Your task to perform on an android device: clear history in the chrome app Image 0: 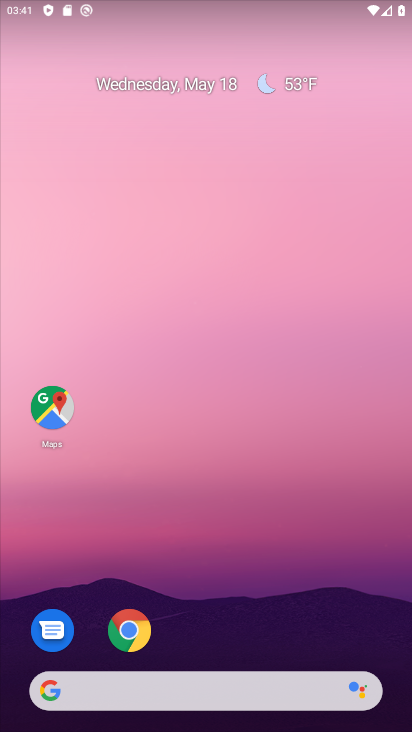
Step 0: click (131, 630)
Your task to perform on an android device: clear history in the chrome app Image 1: 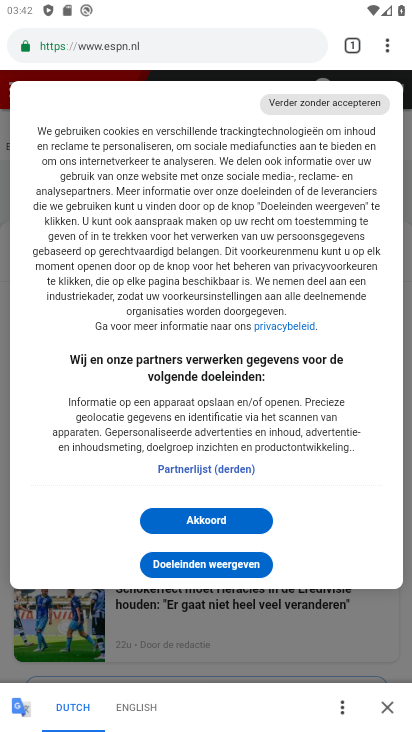
Step 1: click (388, 52)
Your task to perform on an android device: clear history in the chrome app Image 2: 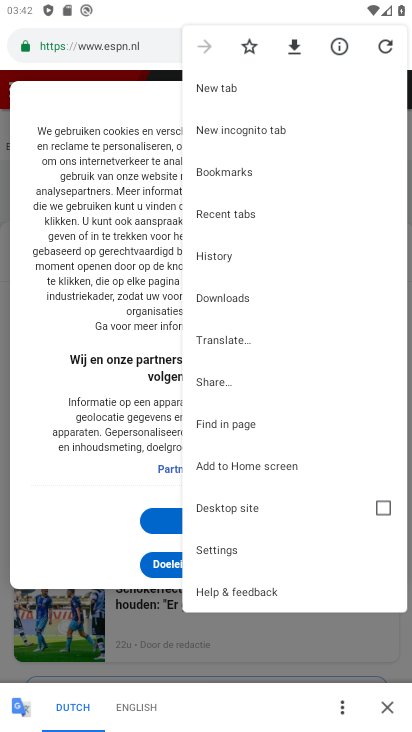
Step 2: click (213, 254)
Your task to perform on an android device: clear history in the chrome app Image 3: 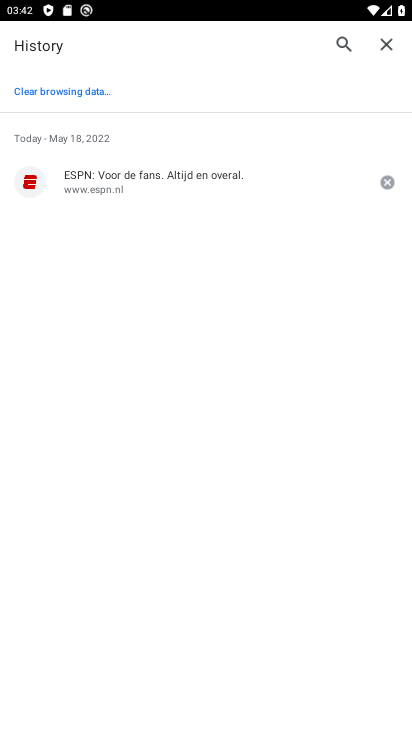
Step 3: click (67, 92)
Your task to perform on an android device: clear history in the chrome app Image 4: 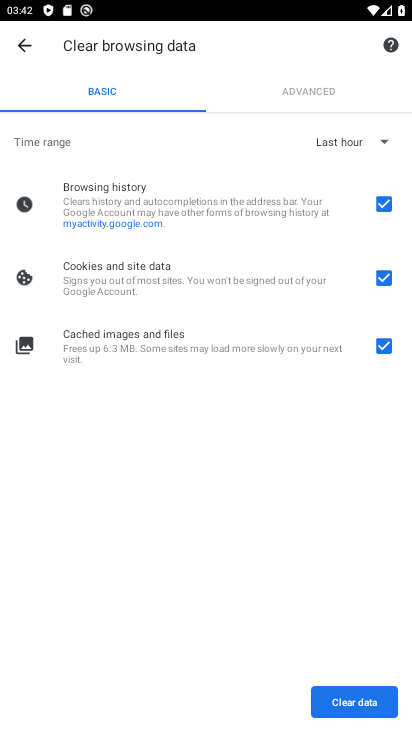
Step 4: click (377, 340)
Your task to perform on an android device: clear history in the chrome app Image 5: 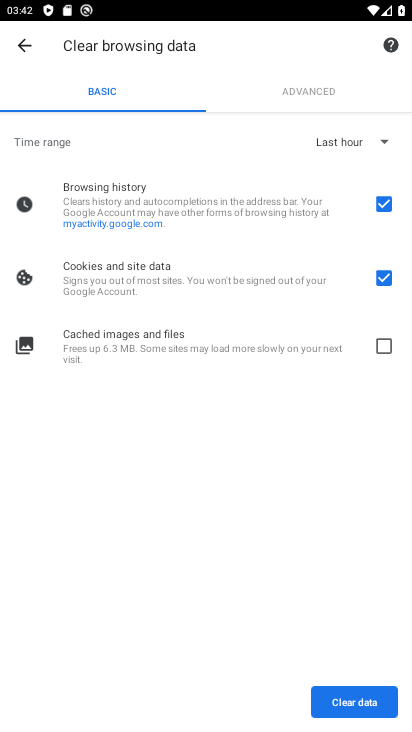
Step 5: click (383, 279)
Your task to perform on an android device: clear history in the chrome app Image 6: 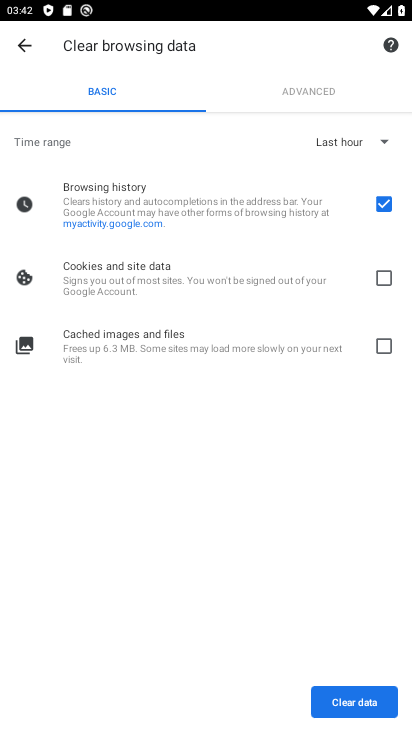
Step 6: click (350, 702)
Your task to perform on an android device: clear history in the chrome app Image 7: 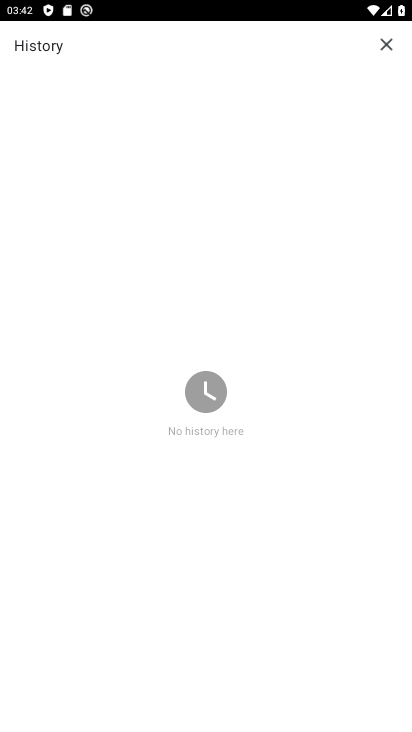
Step 7: task complete